Your task to perform on an android device: check out phone information Image 0: 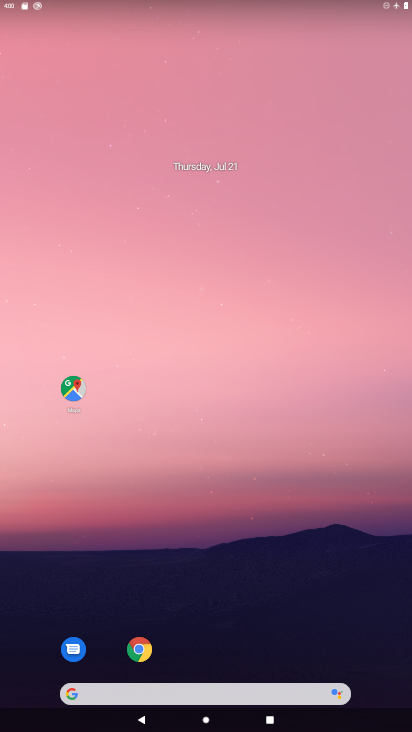
Step 0: drag from (183, 660) to (142, 232)
Your task to perform on an android device: check out phone information Image 1: 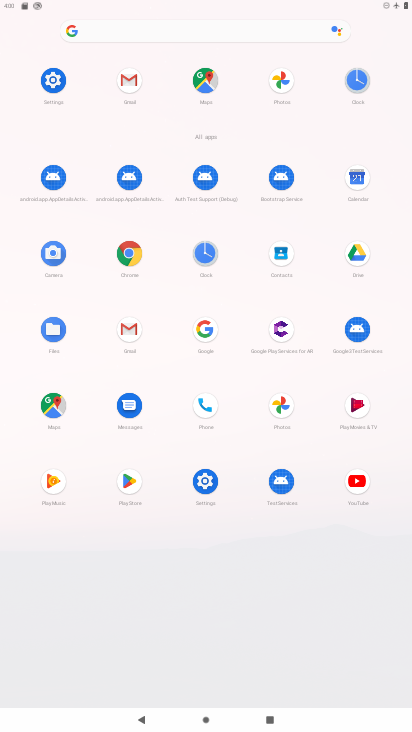
Step 1: click (205, 412)
Your task to perform on an android device: check out phone information Image 2: 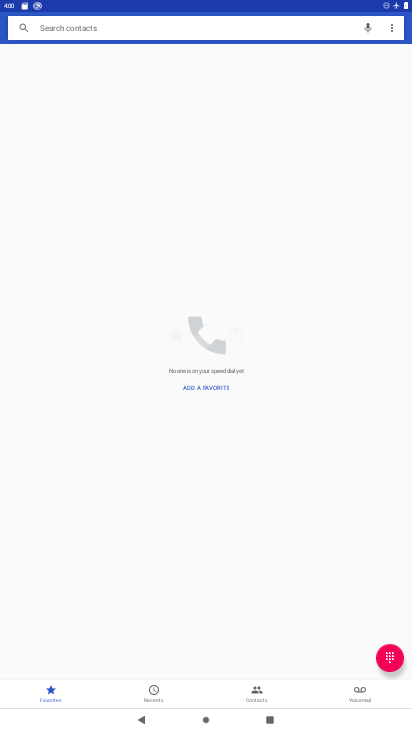
Step 2: click (393, 33)
Your task to perform on an android device: check out phone information Image 3: 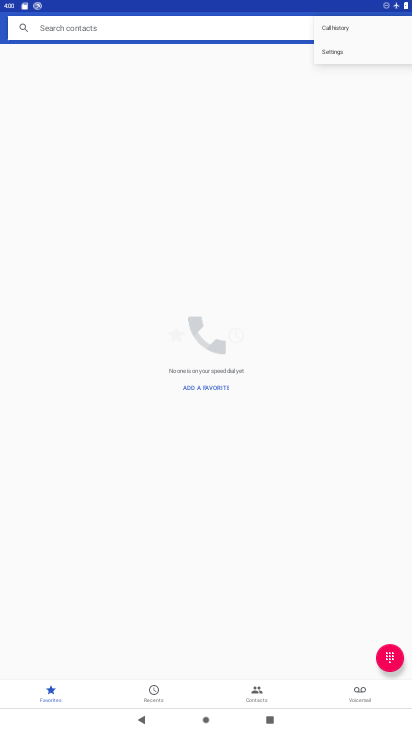
Step 3: click (355, 49)
Your task to perform on an android device: check out phone information Image 4: 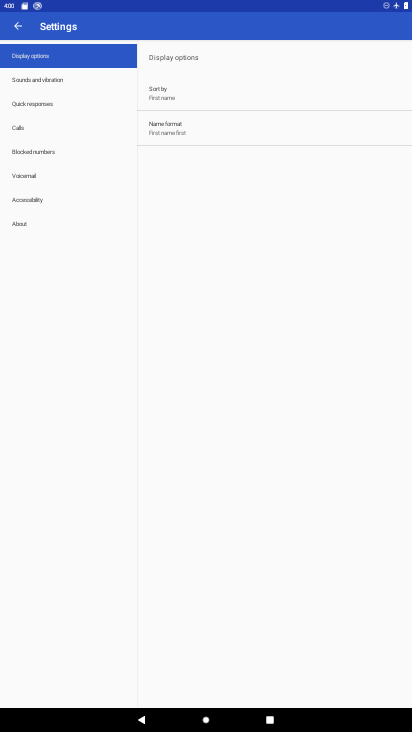
Step 4: click (25, 222)
Your task to perform on an android device: check out phone information Image 5: 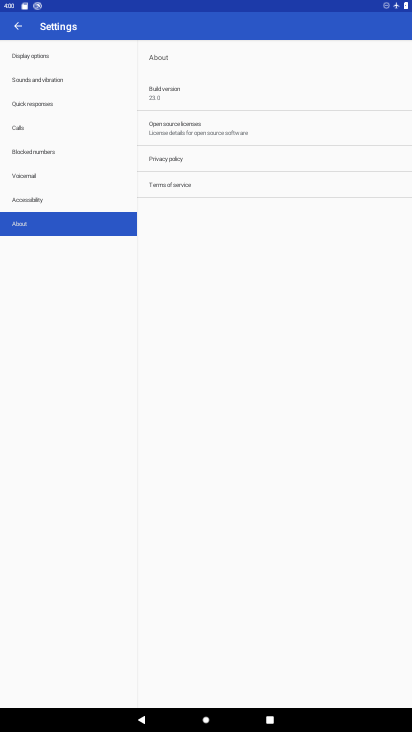
Step 5: task complete